Your task to perform on an android device: Clear the cart on ebay. Search for "razer kraken" on ebay, select the first entry, and add it to the cart. Image 0: 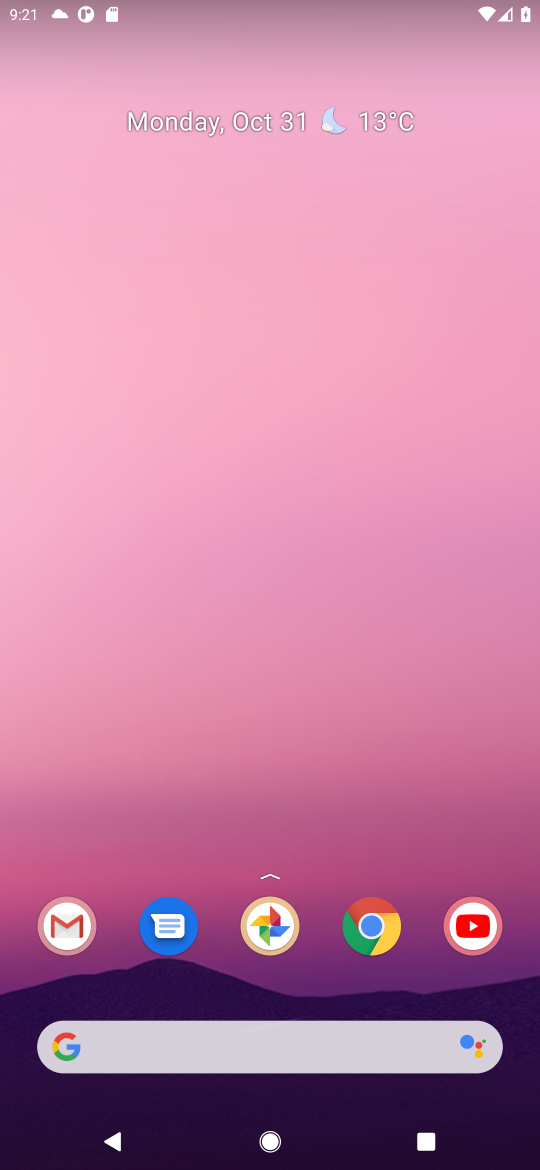
Step 0: click (376, 934)
Your task to perform on an android device: Clear the cart on ebay. Search for "razer kraken" on ebay, select the first entry, and add it to the cart. Image 1: 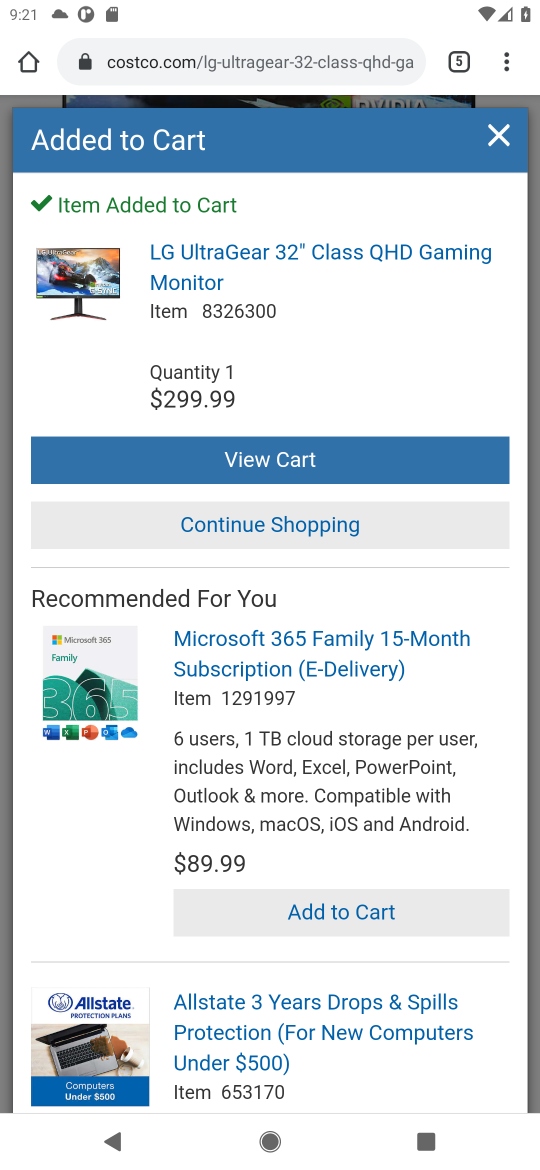
Step 1: click (456, 59)
Your task to perform on an android device: Clear the cart on ebay. Search for "razer kraken" on ebay, select the first entry, and add it to the cart. Image 2: 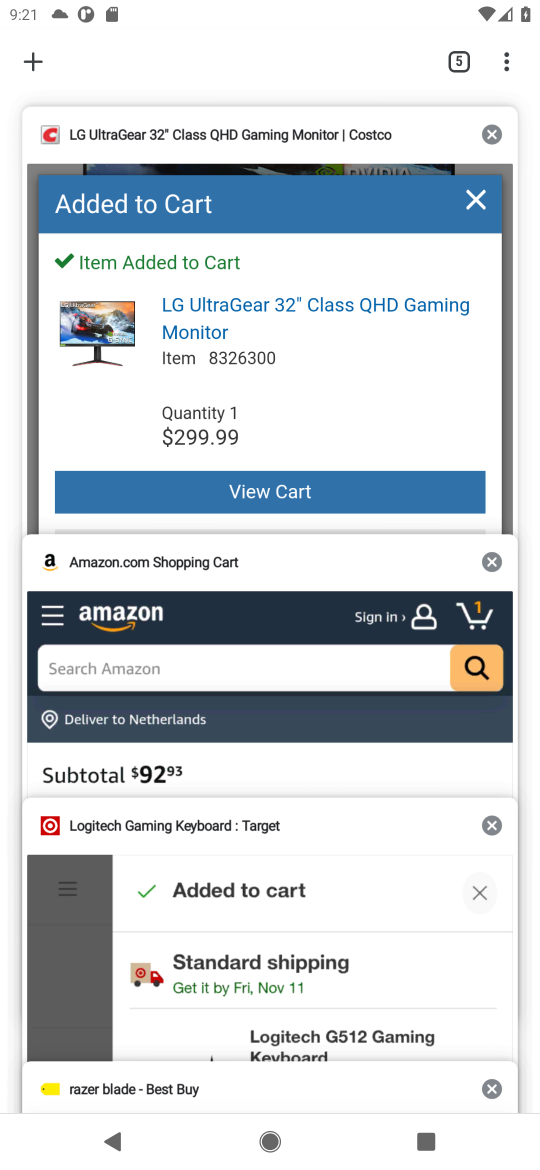
Step 2: click (31, 62)
Your task to perform on an android device: Clear the cart on ebay. Search for "razer kraken" on ebay, select the first entry, and add it to the cart. Image 3: 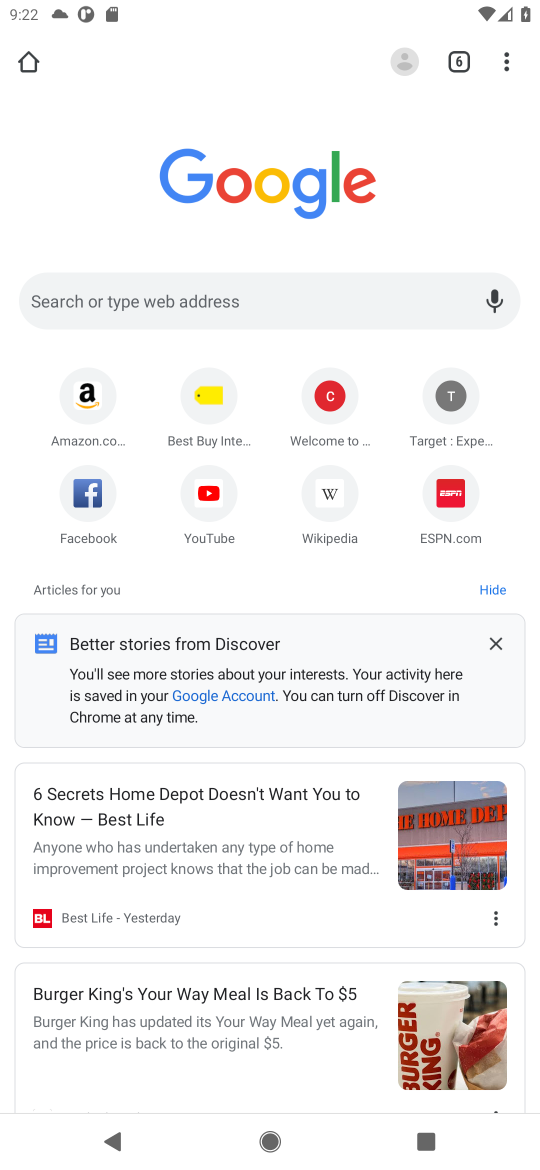
Step 3: click (244, 304)
Your task to perform on an android device: Clear the cart on ebay. Search for "razer kraken" on ebay, select the first entry, and add it to the cart. Image 4: 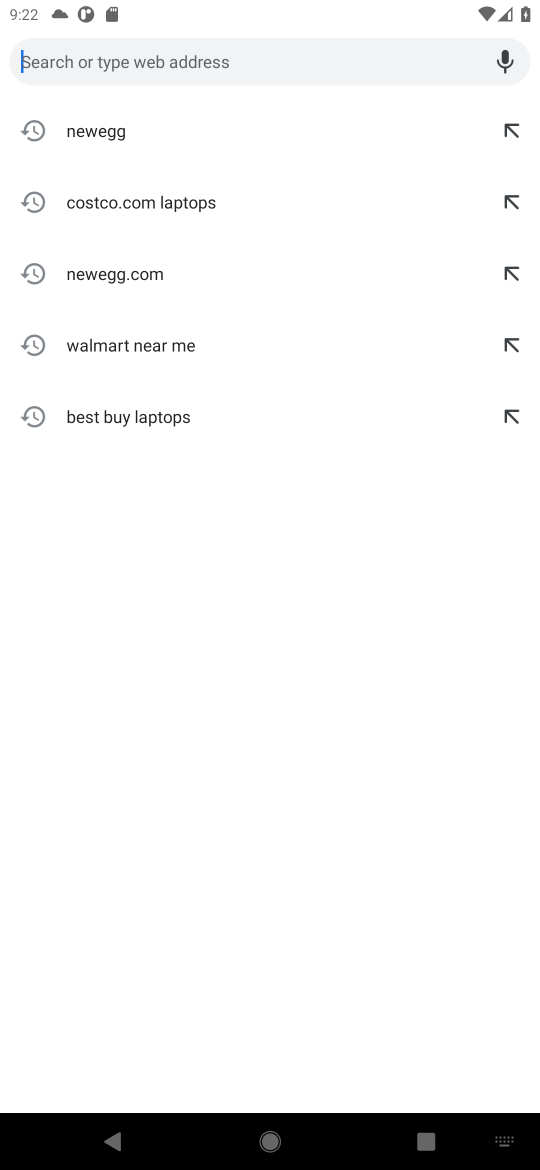
Step 4: type "ebay"
Your task to perform on an android device: Clear the cart on ebay. Search for "razer kraken" on ebay, select the first entry, and add it to the cart. Image 5: 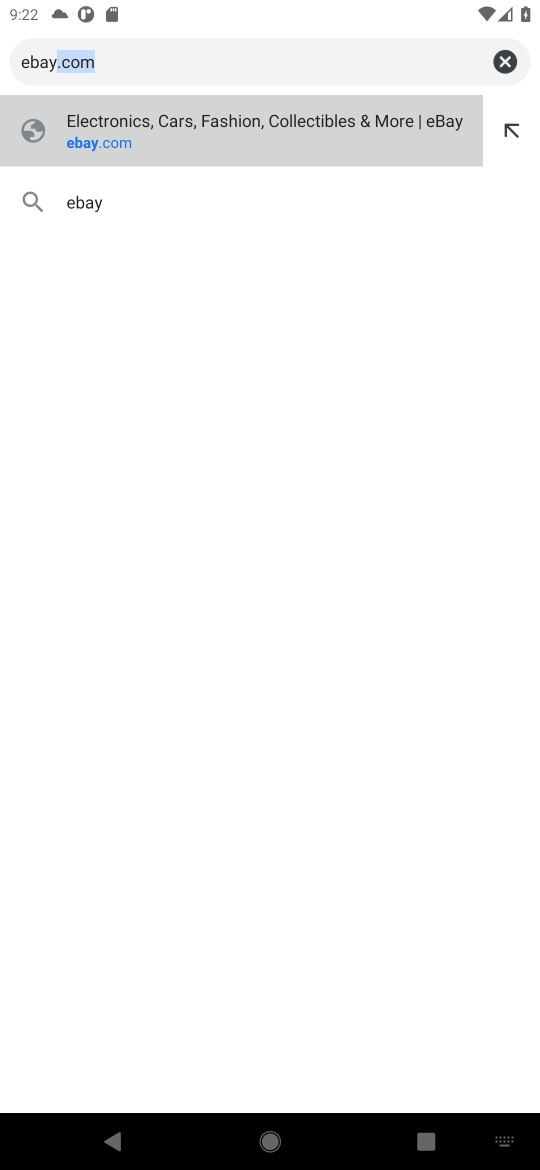
Step 5: click (223, 145)
Your task to perform on an android device: Clear the cart on ebay. Search for "razer kraken" on ebay, select the first entry, and add it to the cart. Image 6: 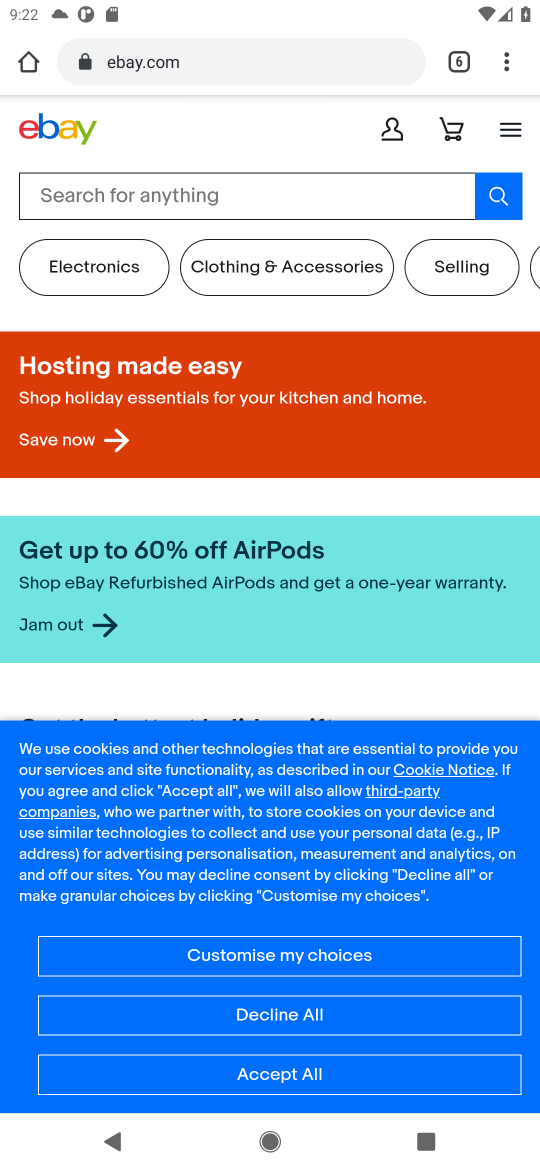
Step 6: click (270, 1013)
Your task to perform on an android device: Clear the cart on ebay. Search for "razer kraken" on ebay, select the first entry, and add it to the cart. Image 7: 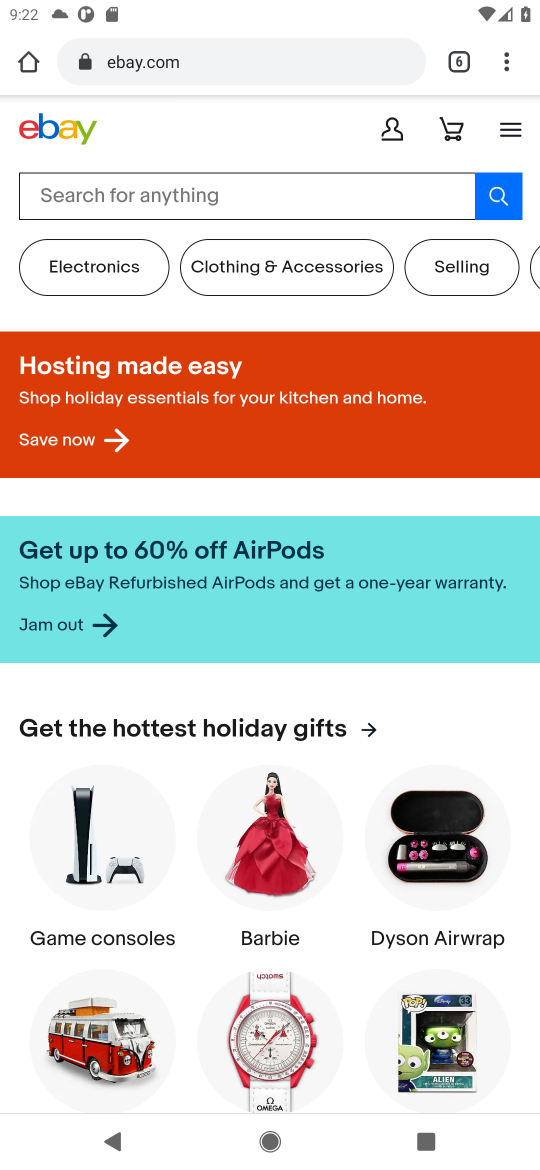
Step 7: click (199, 192)
Your task to perform on an android device: Clear the cart on ebay. Search for "razer kraken" on ebay, select the first entry, and add it to the cart. Image 8: 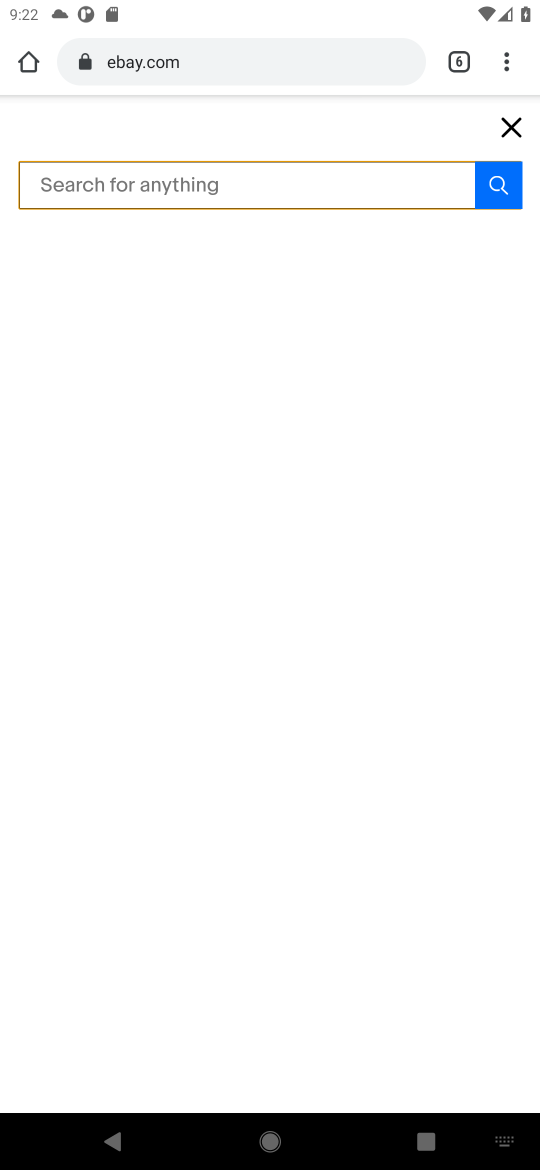
Step 8: type "razer kraken"
Your task to perform on an android device: Clear the cart on ebay. Search for "razer kraken" on ebay, select the first entry, and add it to the cart. Image 9: 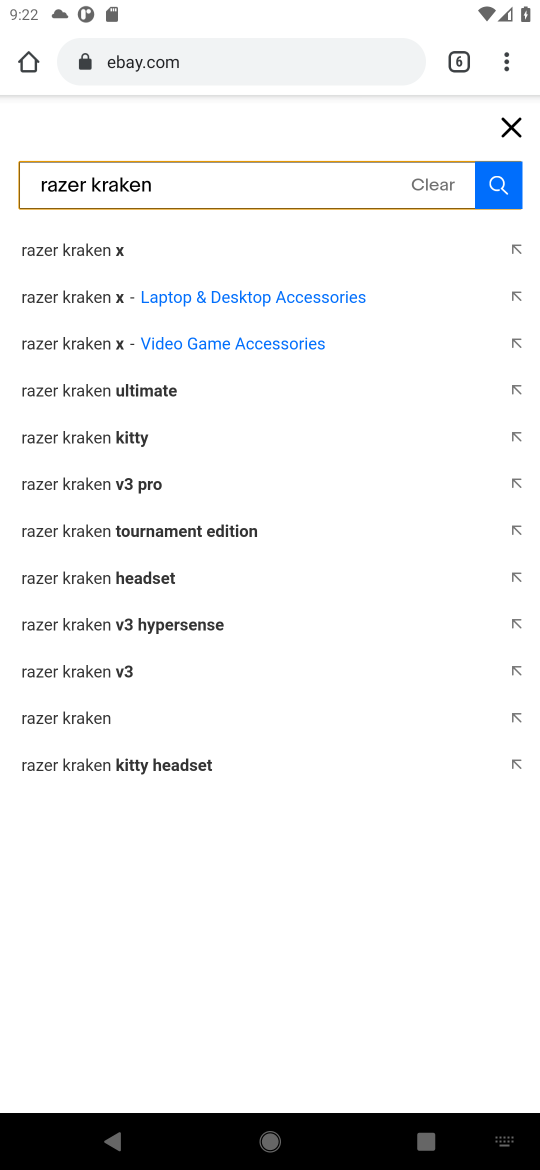
Step 9: click (91, 288)
Your task to perform on an android device: Clear the cart on ebay. Search for "razer kraken" on ebay, select the first entry, and add it to the cart. Image 10: 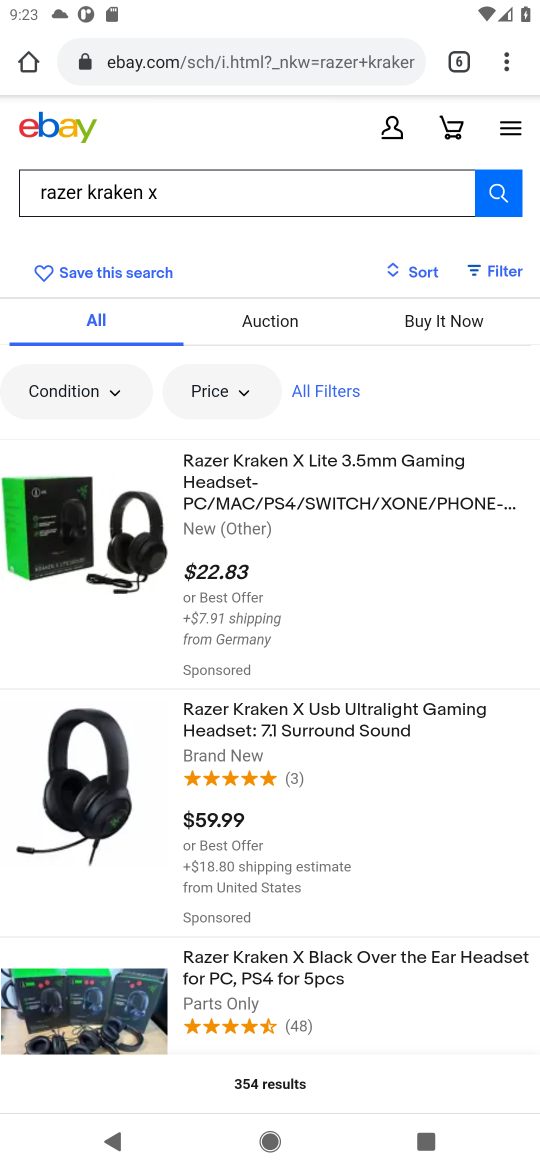
Step 10: click (242, 725)
Your task to perform on an android device: Clear the cart on ebay. Search for "razer kraken" on ebay, select the first entry, and add it to the cart. Image 11: 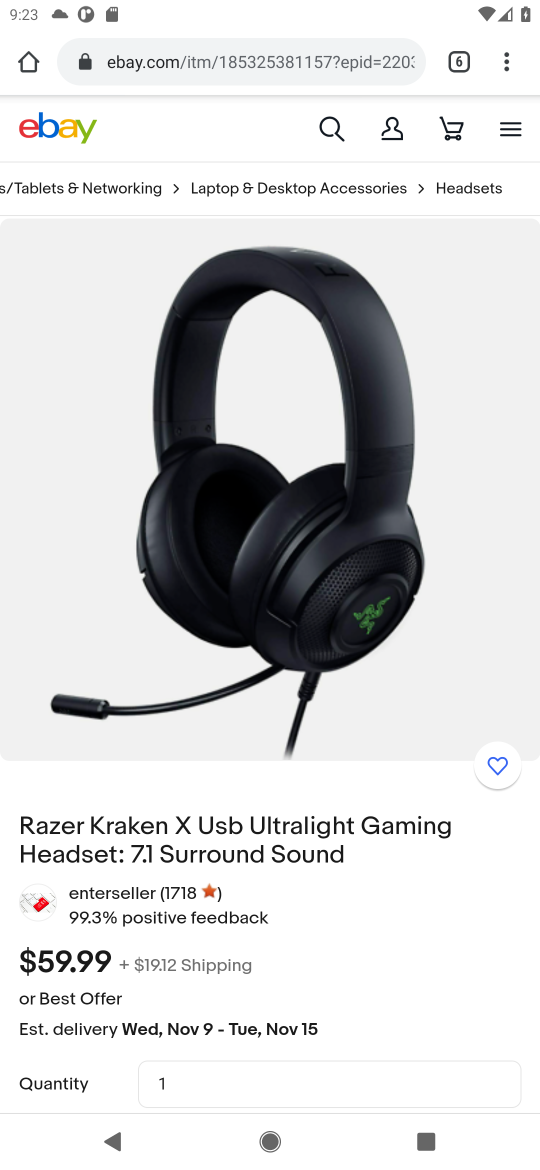
Step 11: drag from (270, 1019) to (419, 397)
Your task to perform on an android device: Clear the cart on ebay. Search for "razer kraken" on ebay, select the first entry, and add it to the cart. Image 12: 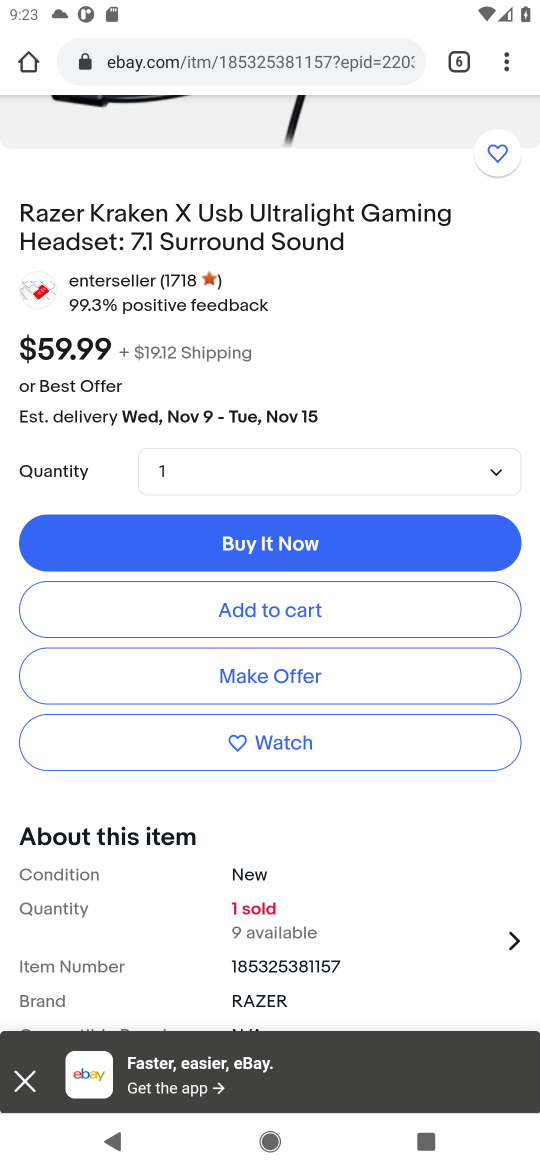
Step 12: click (335, 611)
Your task to perform on an android device: Clear the cart on ebay. Search for "razer kraken" on ebay, select the first entry, and add it to the cart. Image 13: 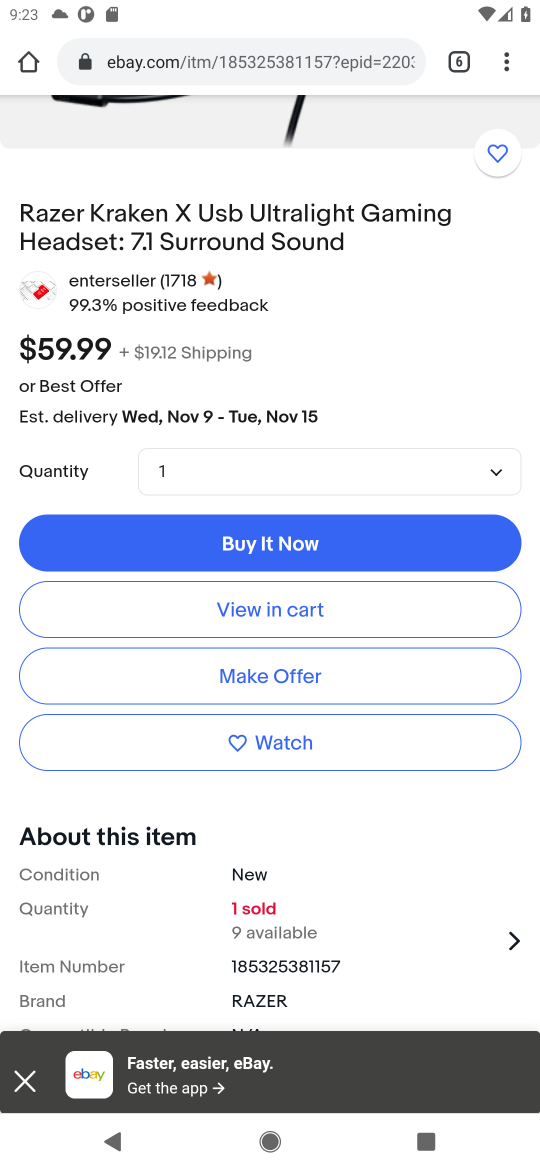
Step 13: task complete